Your task to perform on an android device: change keyboard looks Image 0: 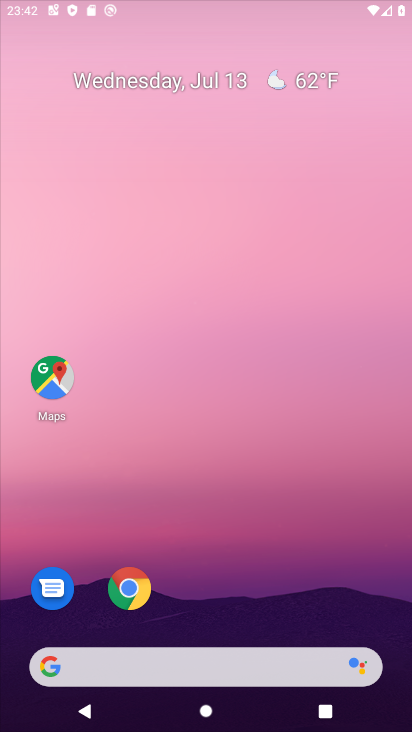
Step 0: press home button
Your task to perform on an android device: change keyboard looks Image 1: 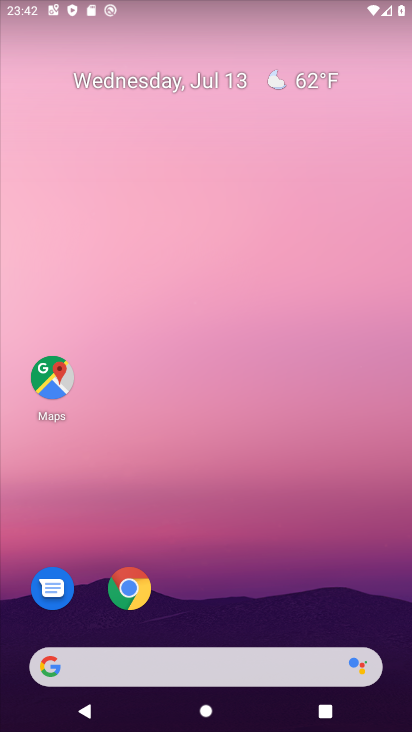
Step 1: drag from (166, 644) to (139, 277)
Your task to perform on an android device: change keyboard looks Image 2: 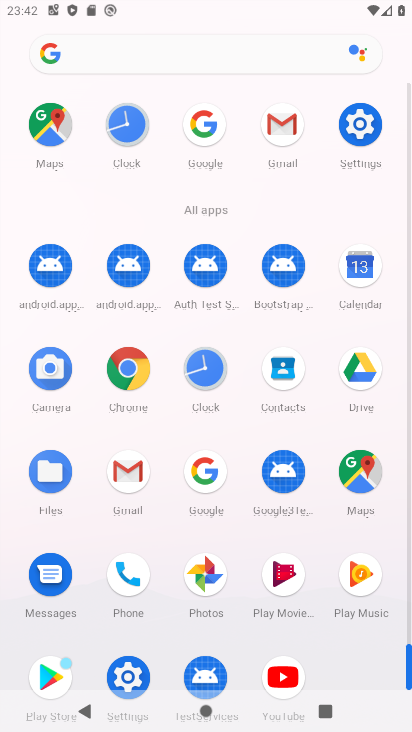
Step 2: click (131, 670)
Your task to perform on an android device: change keyboard looks Image 3: 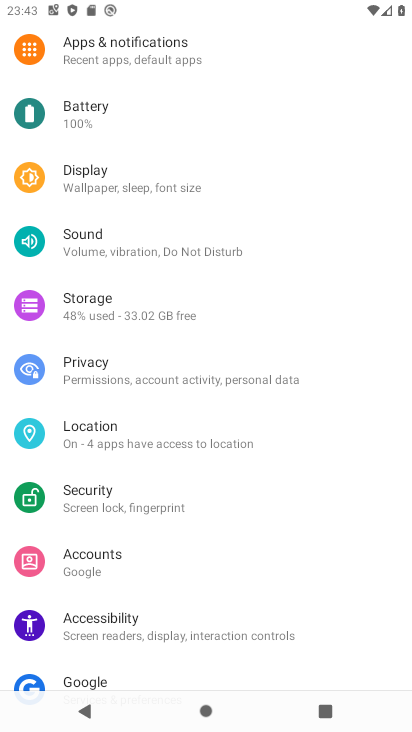
Step 3: drag from (127, 642) to (111, 365)
Your task to perform on an android device: change keyboard looks Image 4: 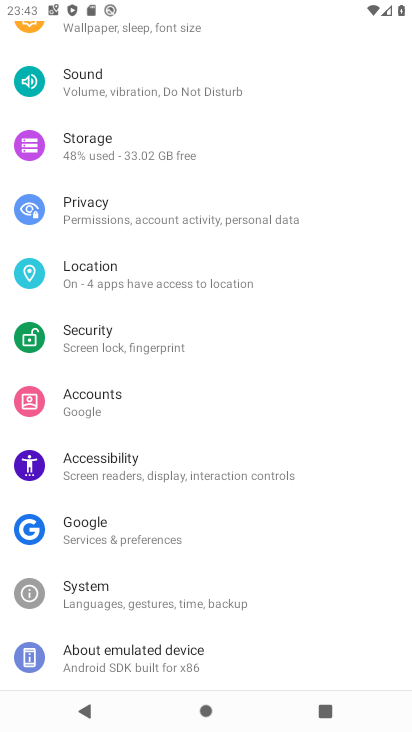
Step 4: click (83, 591)
Your task to perform on an android device: change keyboard looks Image 5: 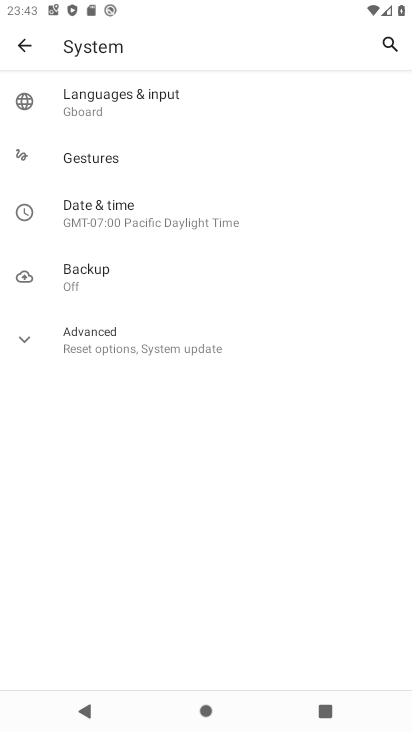
Step 5: click (89, 339)
Your task to perform on an android device: change keyboard looks Image 6: 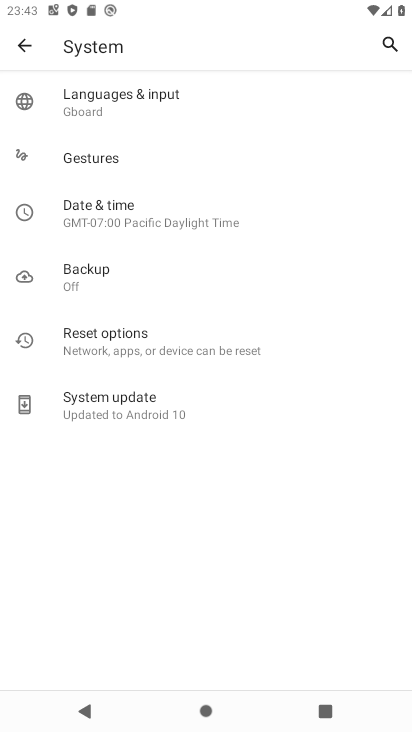
Step 6: click (102, 100)
Your task to perform on an android device: change keyboard looks Image 7: 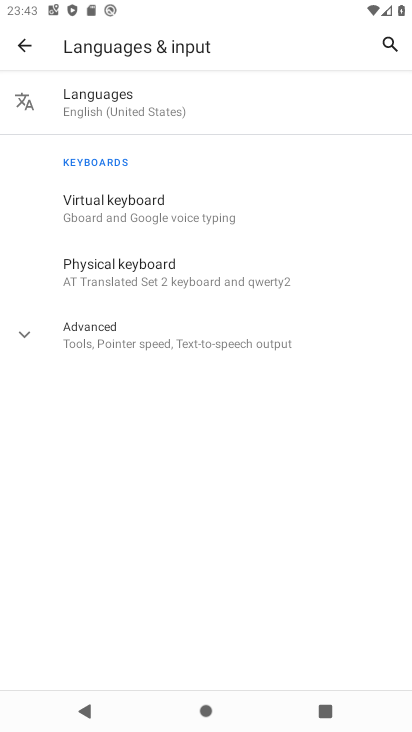
Step 7: click (124, 335)
Your task to perform on an android device: change keyboard looks Image 8: 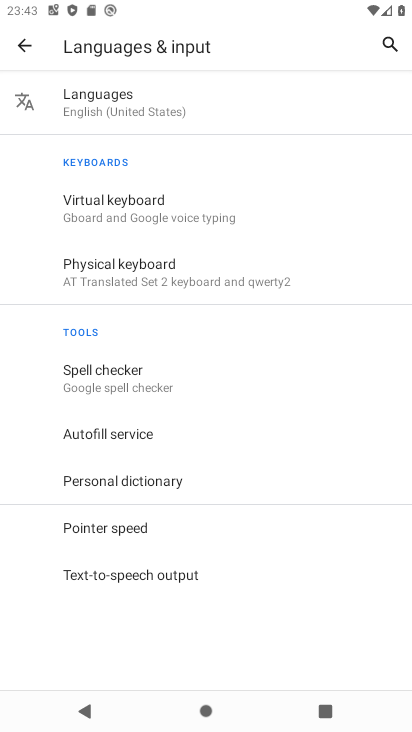
Step 8: click (115, 205)
Your task to perform on an android device: change keyboard looks Image 9: 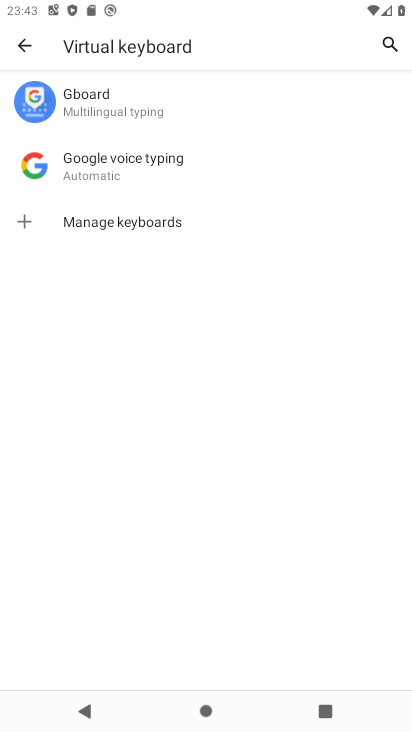
Step 9: click (92, 112)
Your task to perform on an android device: change keyboard looks Image 10: 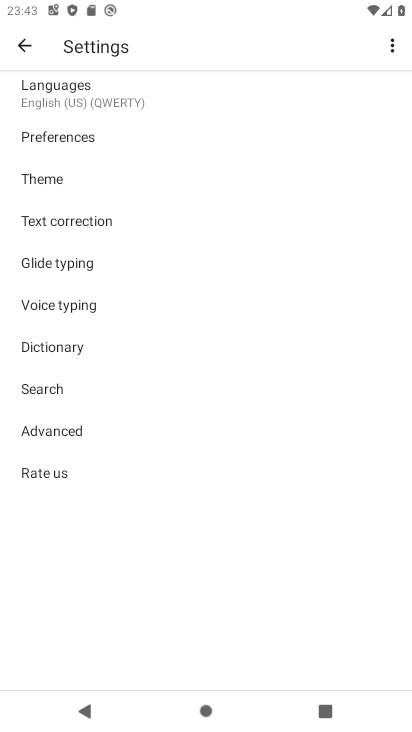
Step 10: click (44, 181)
Your task to perform on an android device: change keyboard looks Image 11: 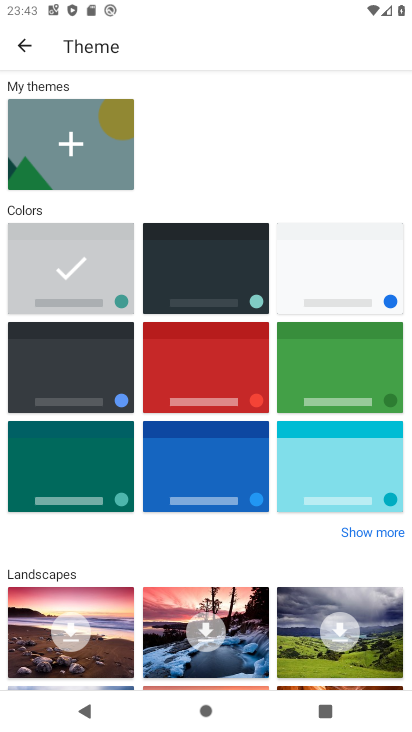
Step 11: click (185, 365)
Your task to perform on an android device: change keyboard looks Image 12: 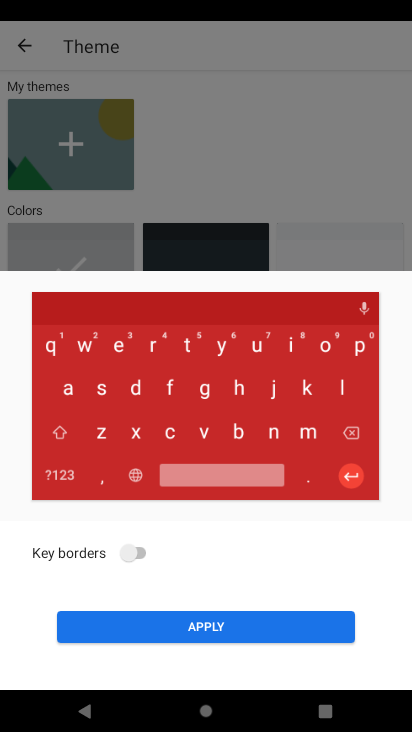
Step 12: click (197, 615)
Your task to perform on an android device: change keyboard looks Image 13: 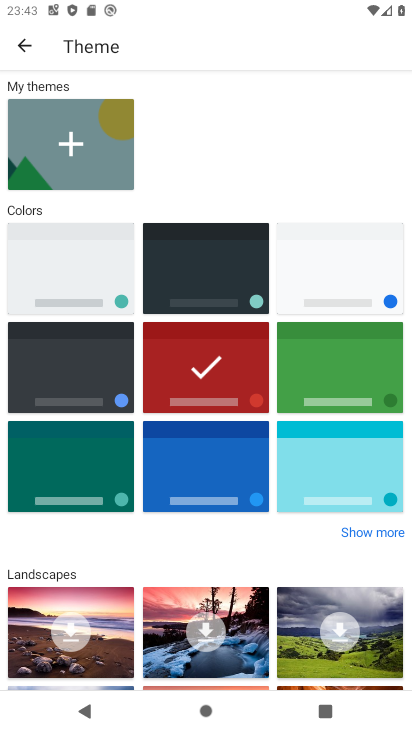
Step 13: task complete